Your task to perform on an android device: toggle improve location accuracy Image 0: 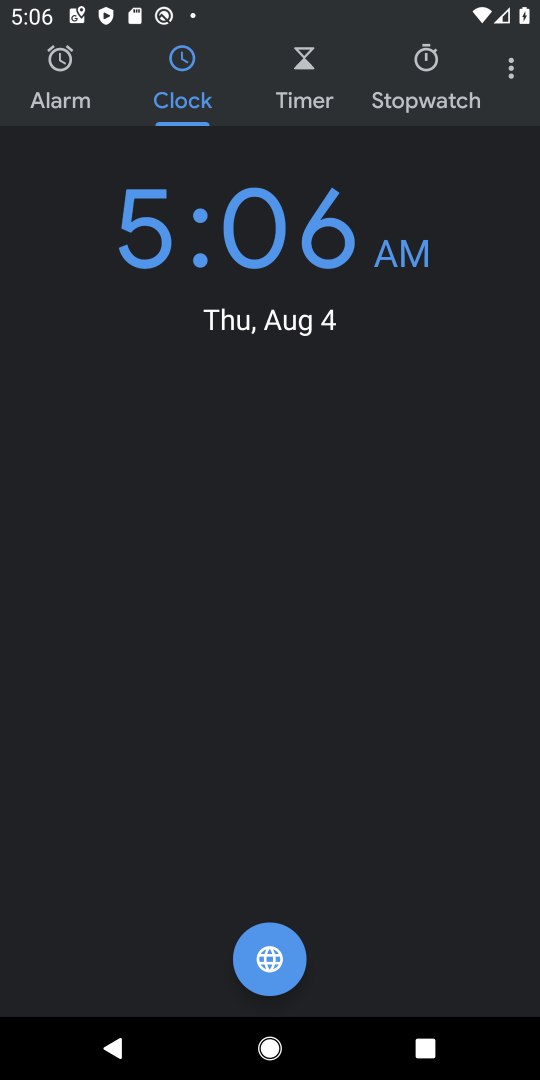
Step 0: press home button
Your task to perform on an android device: toggle improve location accuracy Image 1: 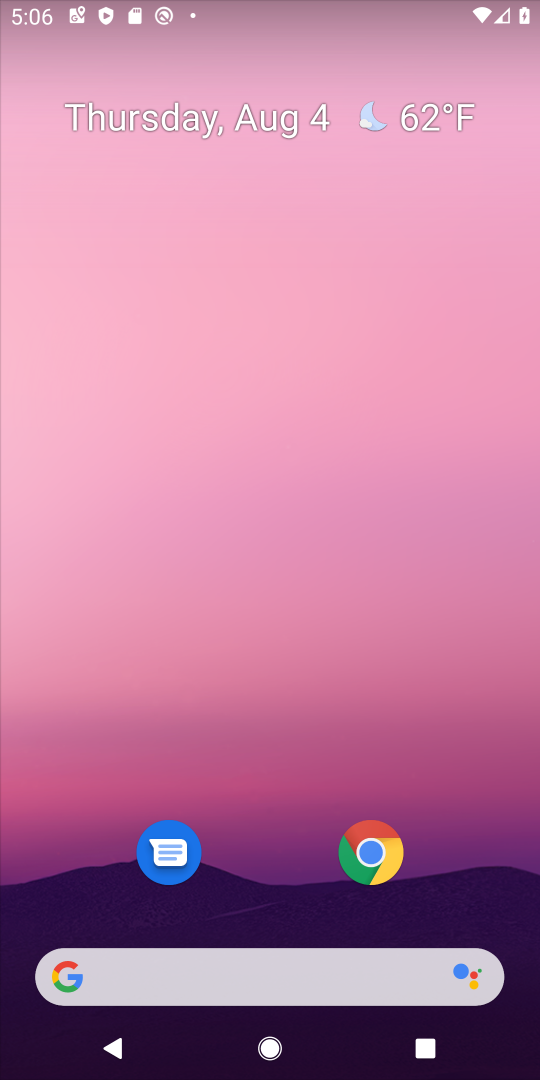
Step 1: drag from (276, 650) to (307, 152)
Your task to perform on an android device: toggle improve location accuracy Image 2: 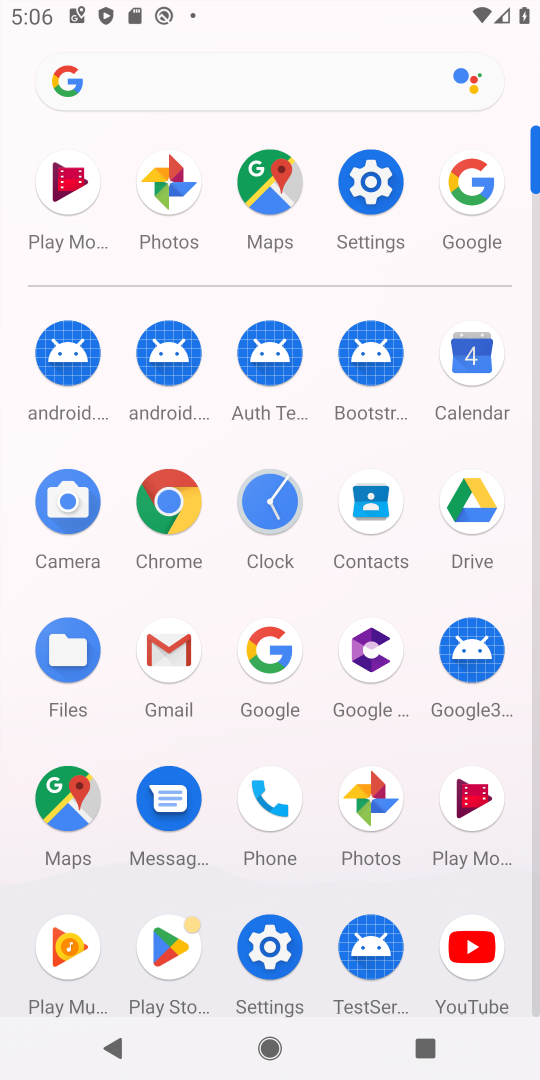
Step 2: click (375, 179)
Your task to perform on an android device: toggle improve location accuracy Image 3: 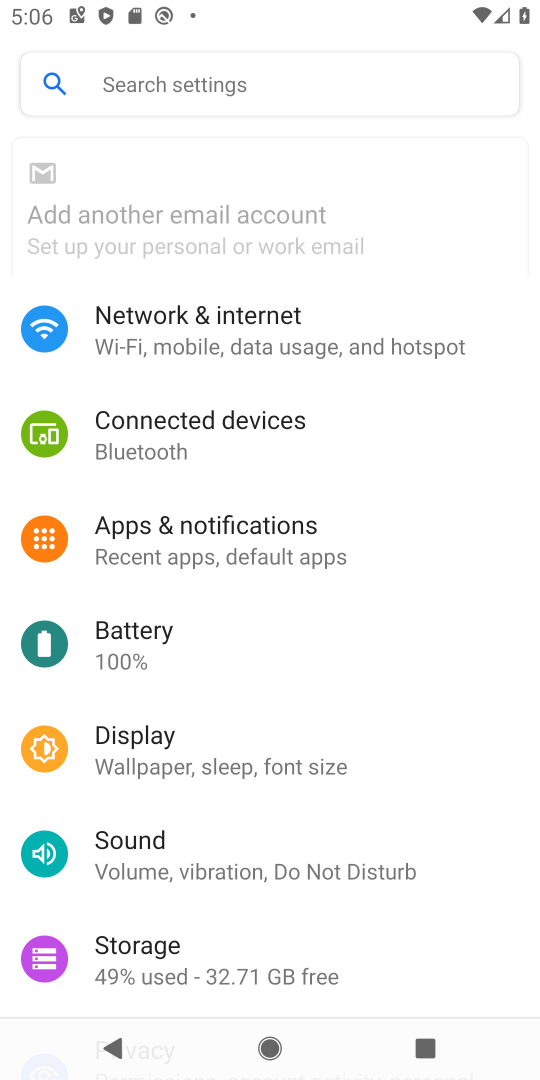
Step 3: drag from (181, 899) to (183, 444)
Your task to perform on an android device: toggle improve location accuracy Image 4: 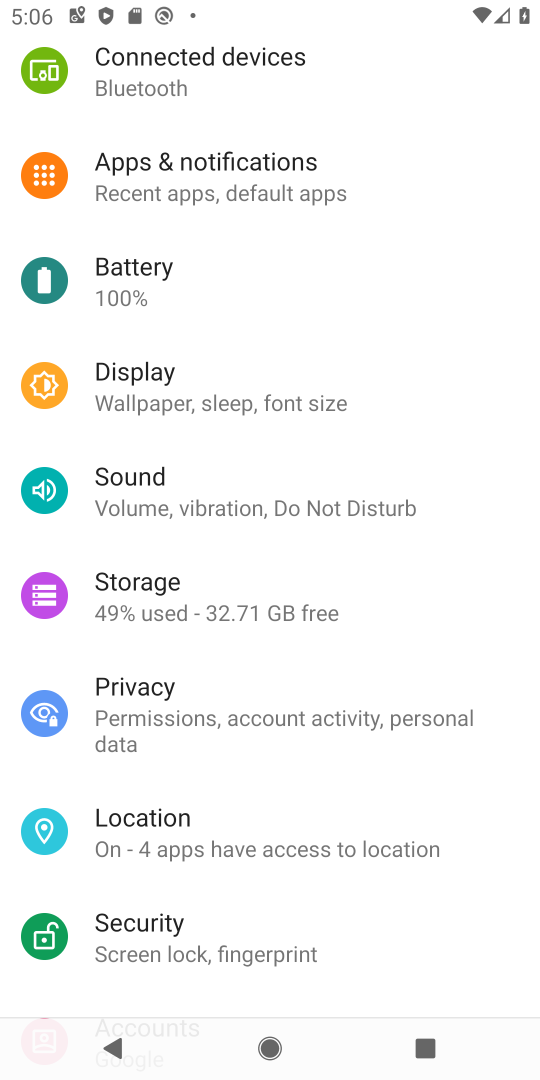
Step 4: click (173, 817)
Your task to perform on an android device: toggle improve location accuracy Image 5: 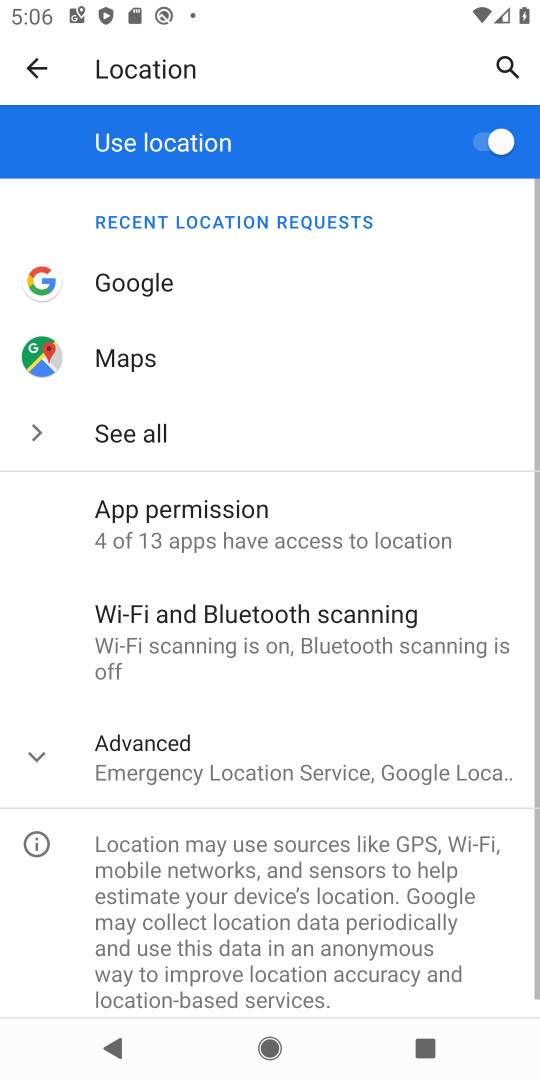
Step 5: click (143, 762)
Your task to perform on an android device: toggle improve location accuracy Image 6: 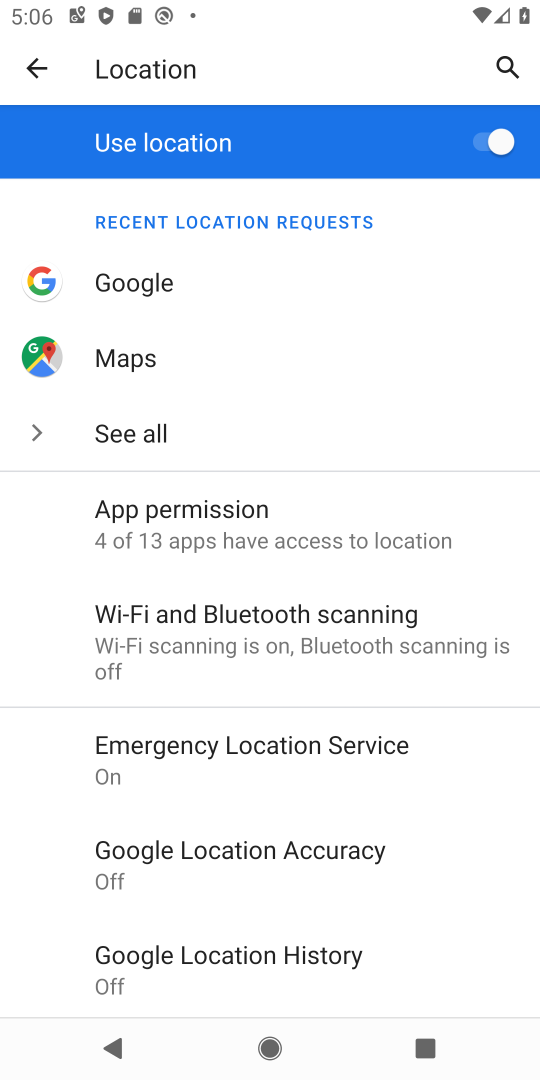
Step 6: click (336, 842)
Your task to perform on an android device: toggle improve location accuracy Image 7: 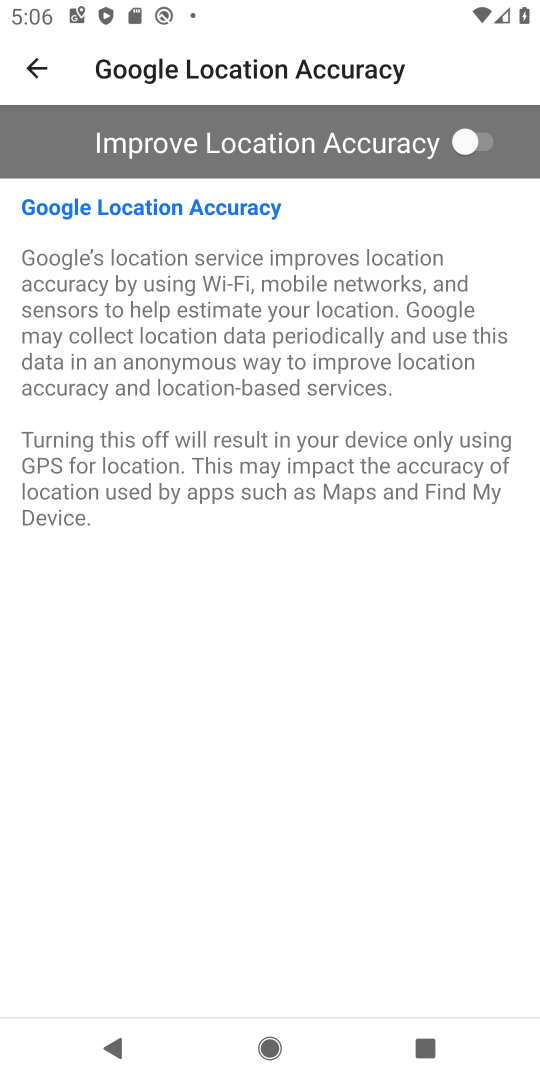
Step 7: click (485, 147)
Your task to perform on an android device: toggle improve location accuracy Image 8: 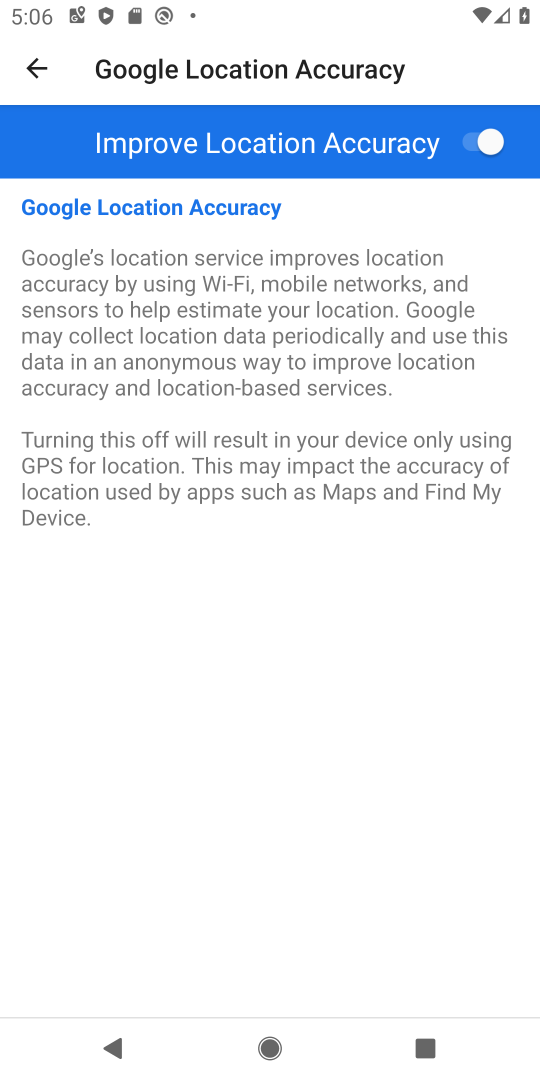
Step 8: task complete